Your task to perform on an android device: change your default location settings in chrome Image 0: 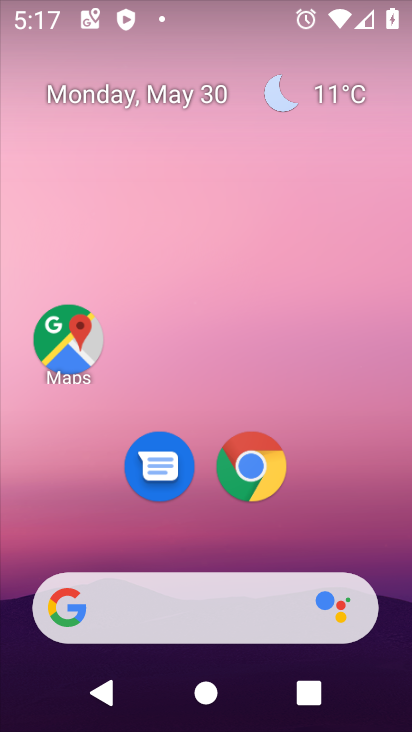
Step 0: click (257, 472)
Your task to perform on an android device: change your default location settings in chrome Image 1: 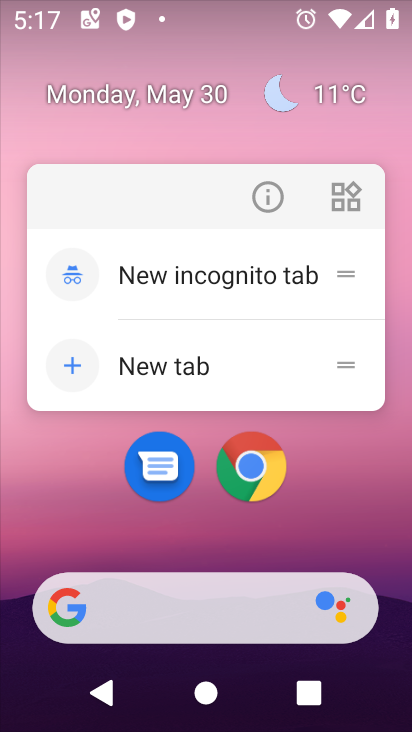
Step 1: click (250, 466)
Your task to perform on an android device: change your default location settings in chrome Image 2: 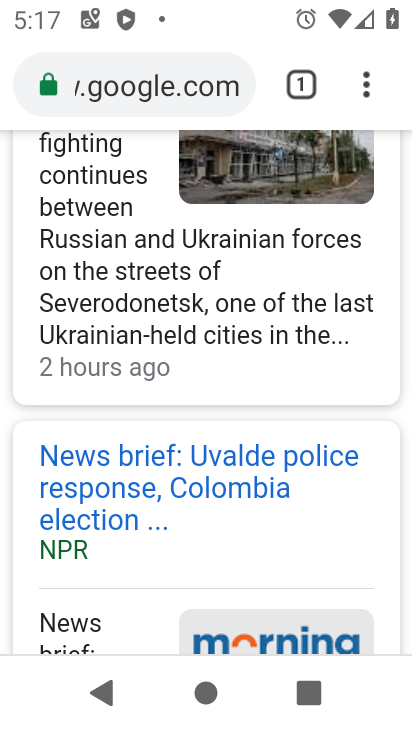
Step 2: click (370, 78)
Your task to perform on an android device: change your default location settings in chrome Image 3: 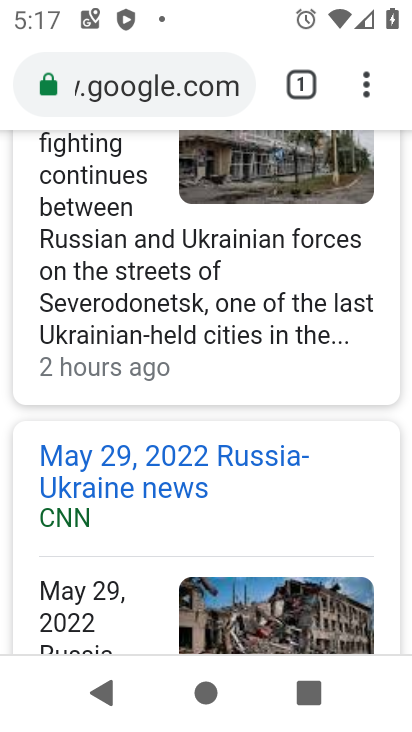
Step 3: drag from (369, 72) to (230, 512)
Your task to perform on an android device: change your default location settings in chrome Image 4: 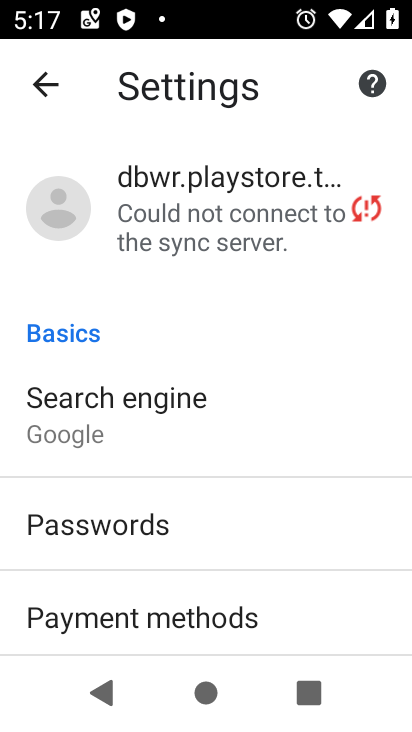
Step 4: drag from (234, 548) to (270, 297)
Your task to perform on an android device: change your default location settings in chrome Image 5: 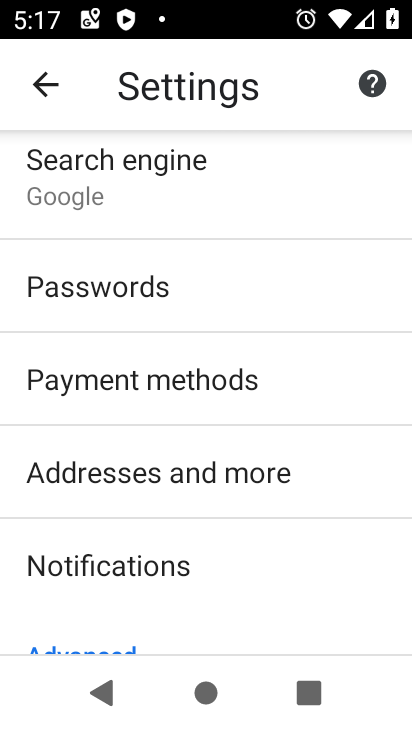
Step 5: drag from (198, 554) to (288, 174)
Your task to perform on an android device: change your default location settings in chrome Image 6: 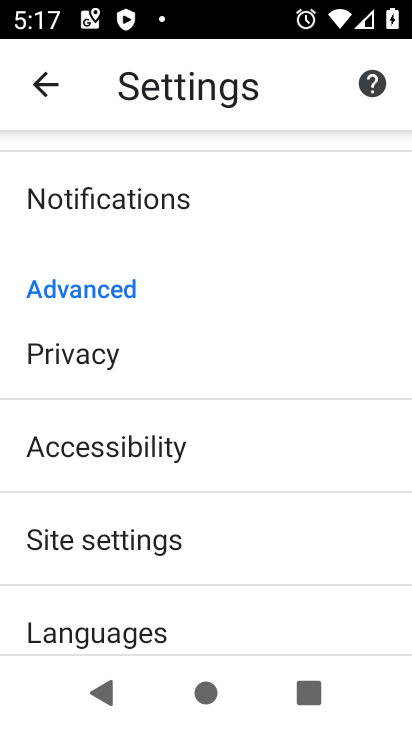
Step 6: click (108, 531)
Your task to perform on an android device: change your default location settings in chrome Image 7: 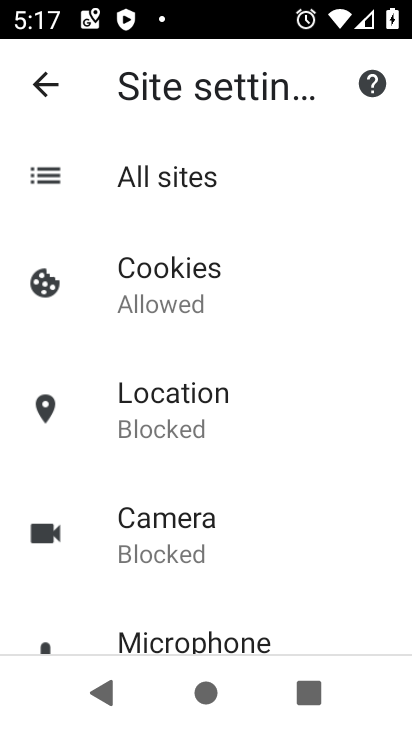
Step 7: click (194, 409)
Your task to perform on an android device: change your default location settings in chrome Image 8: 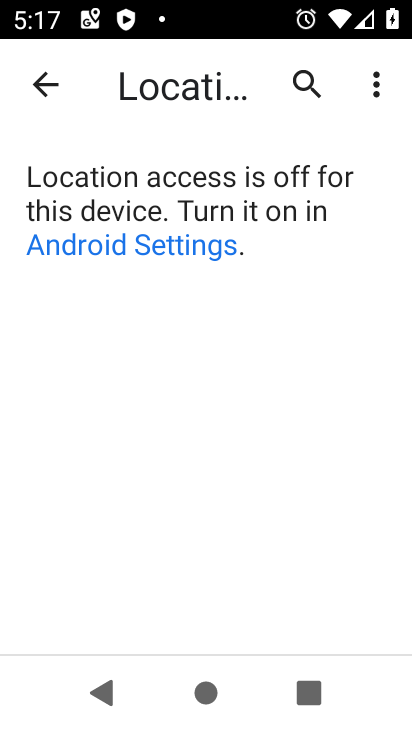
Step 8: task complete